Your task to perform on an android device: When is my next meeting? Image 0: 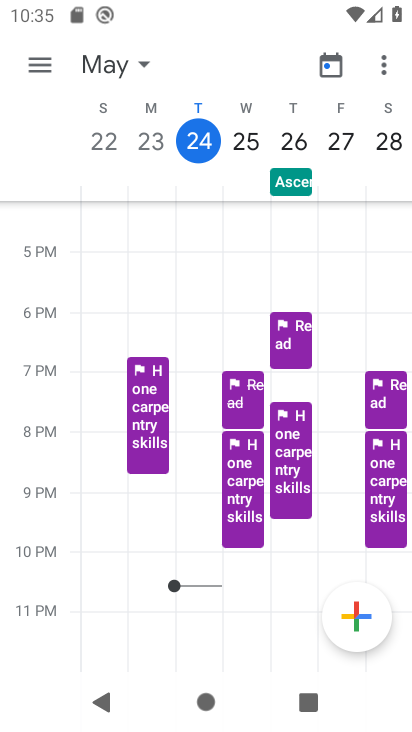
Step 0: press home button
Your task to perform on an android device: When is my next meeting? Image 1: 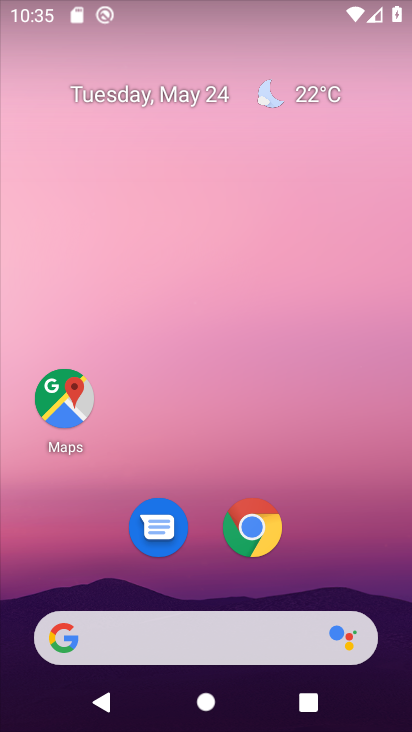
Step 1: drag from (160, 594) to (284, 136)
Your task to perform on an android device: When is my next meeting? Image 2: 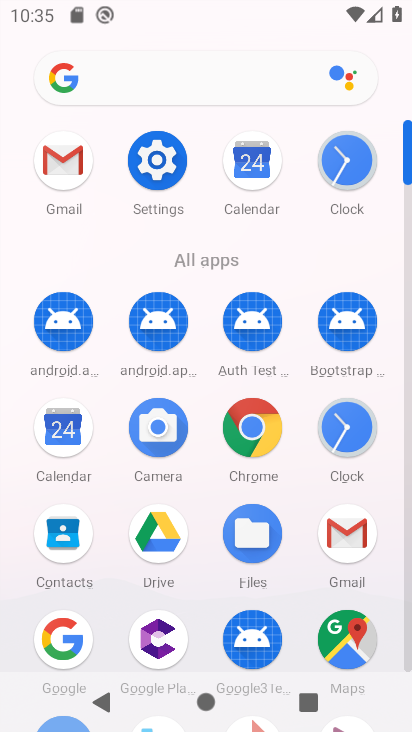
Step 2: click (62, 440)
Your task to perform on an android device: When is my next meeting? Image 3: 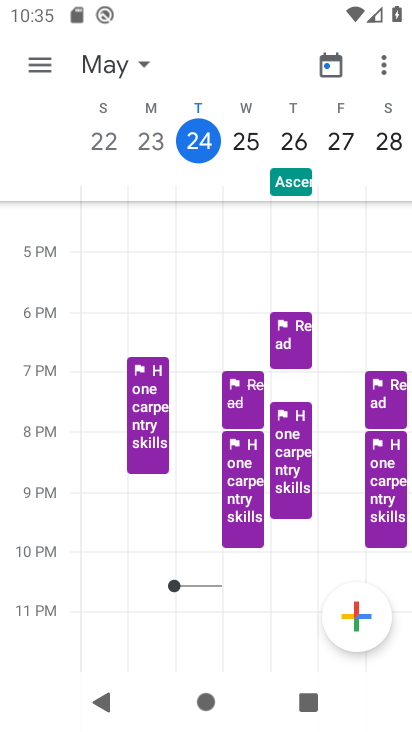
Step 3: click (42, 62)
Your task to perform on an android device: When is my next meeting? Image 4: 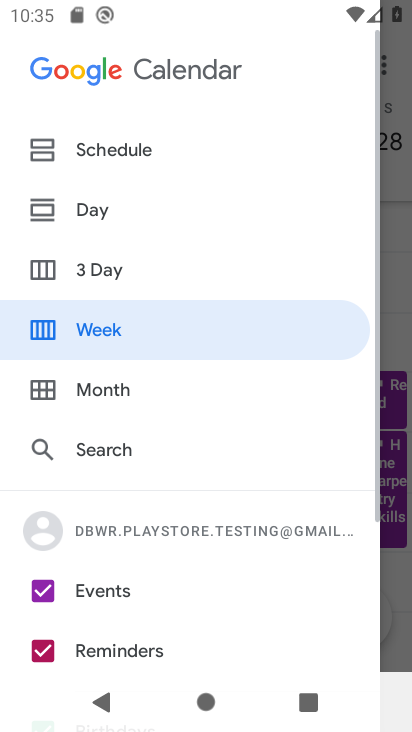
Step 4: click (106, 158)
Your task to perform on an android device: When is my next meeting? Image 5: 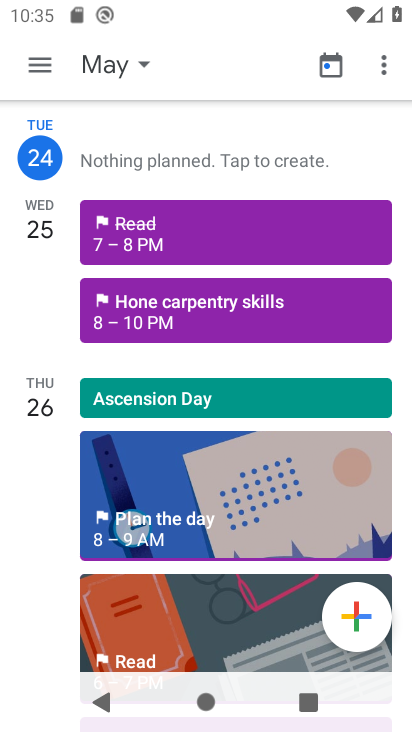
Step 5: click (171, 316)
Your task to perform on an android device: When is my next meeting? Image 6: 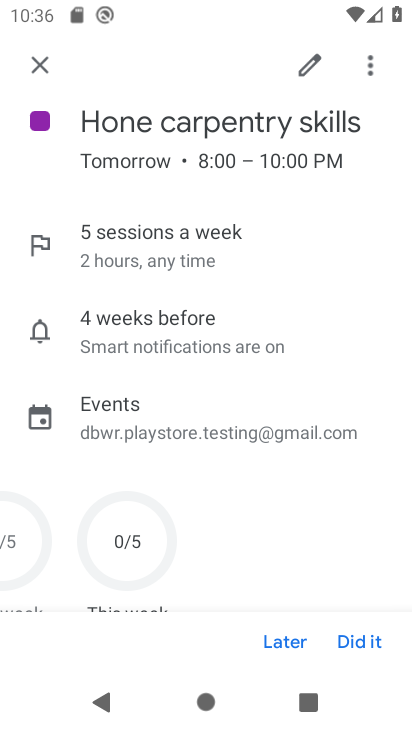
Step 6: task complete